Your task to perform on an android device: turn smart compose on in the gmail app Image 0: 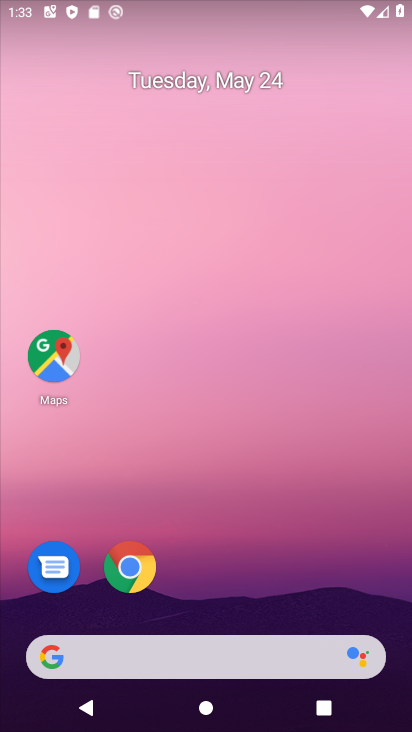
Step 0: drag from (209, 623) to (309, 102)
Your task to perform on an android device: turn smart compose on in the gmail app Image 1: 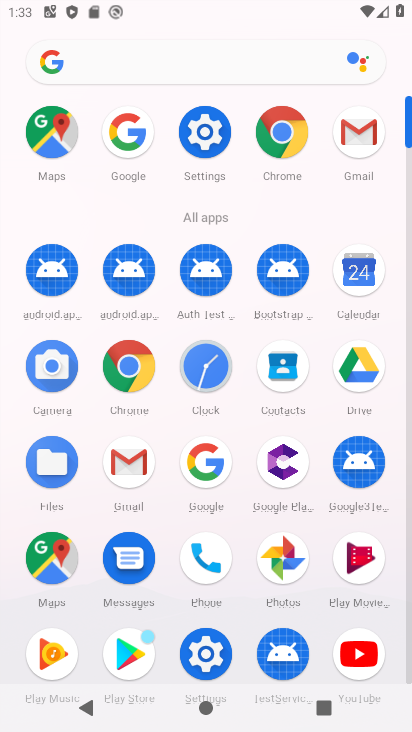
Step 1: click (126, 477)
Your task to perform on an android device: turn smart compose on in the gmail app Image 2: 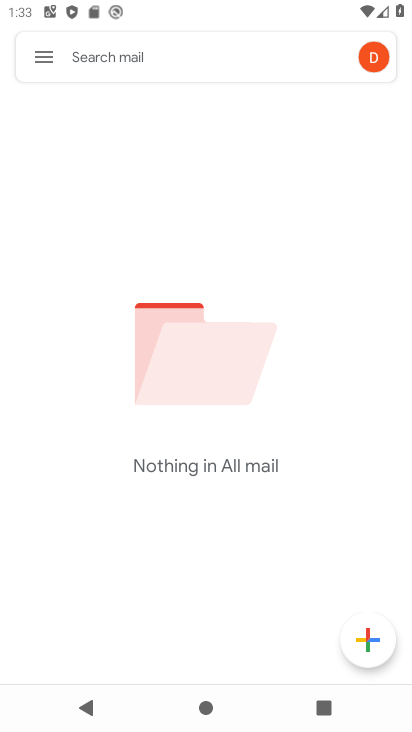
Step 2: click (47, 48)
Your task to perform on an android device: turn smart compose on in the gmail app Image 3: 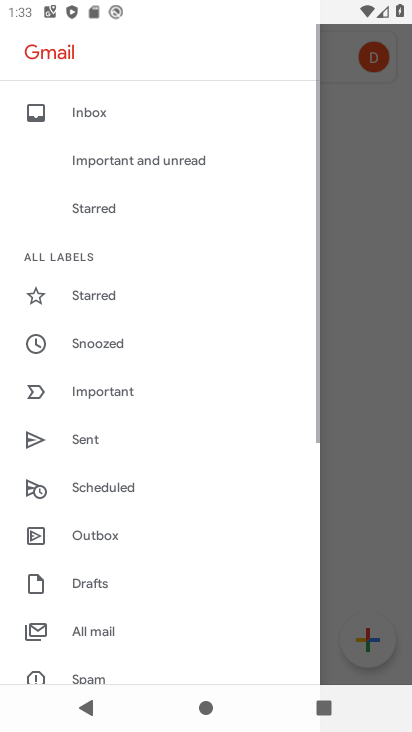
Step 3: drag from (78, 604) to (205, 224)
Your task to perform on an android device: turn smart compose on in the gmail app Image 4: 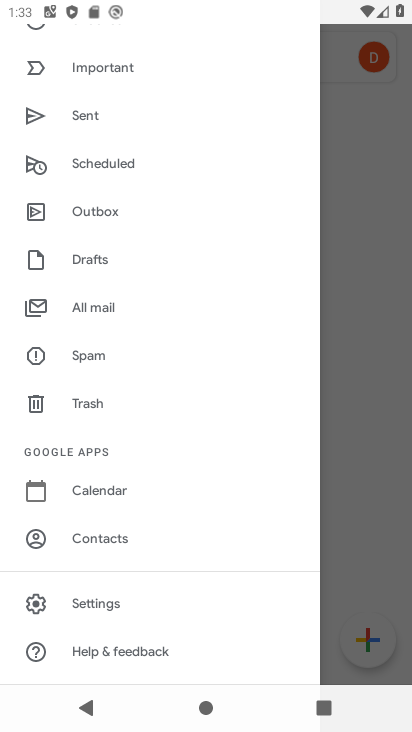
Step 4: click (124, 607)
Your task to perform on an android device: turn smart compose on in the gmail app Image 5: 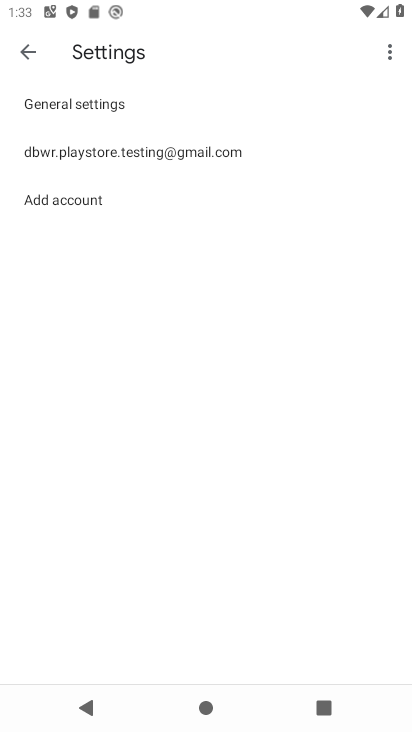
Step 5: click (196, 160)
Your task to perform on an android device: turn smart compose on in the gmail app Image 6: 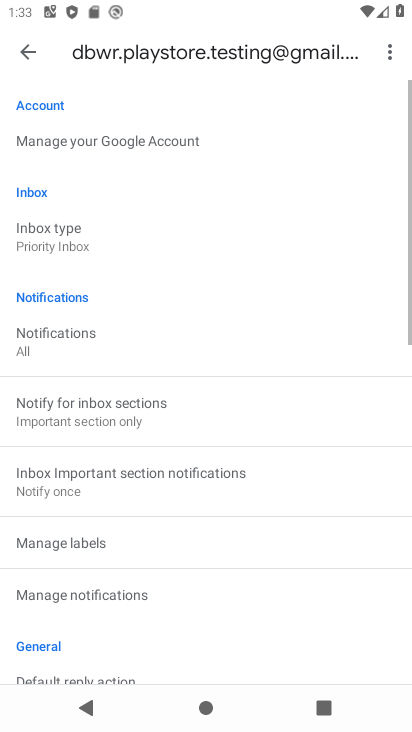
Step 6: task complete